Your task to perform on an android device: Open Amazon Image 0: 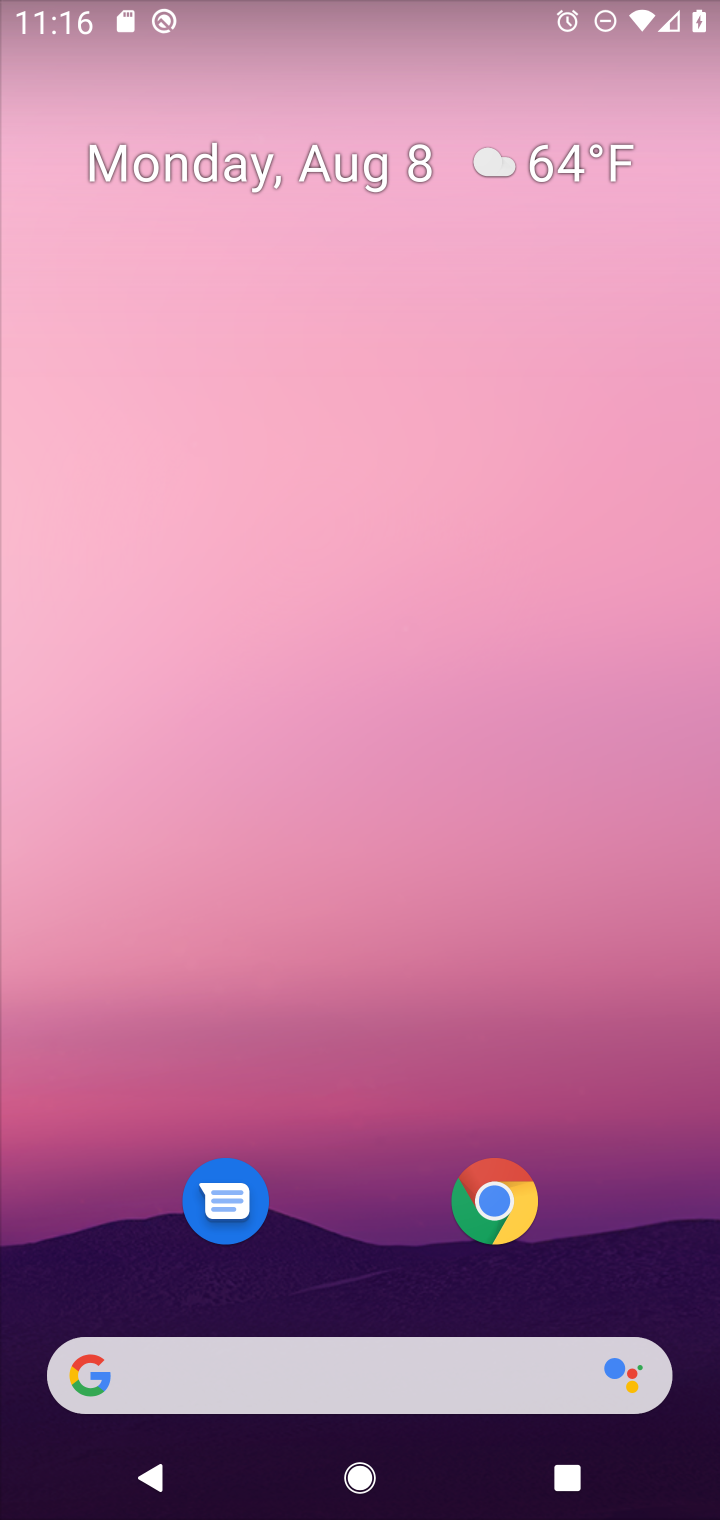
Step 0: press home button
Your task to perform on an android device: Open Amazon Image 1: 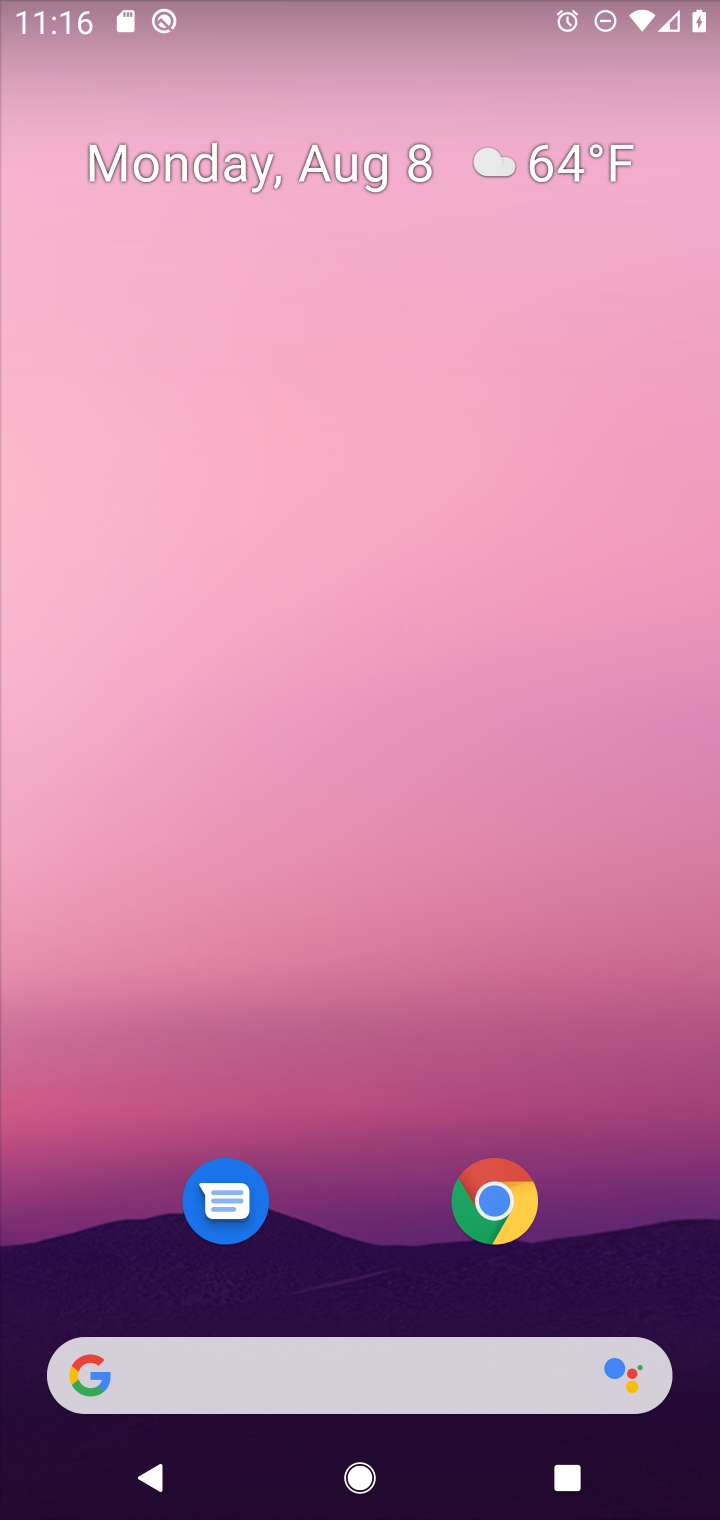
Step 1: drag from (390, 1219) to (462, 267)
Your task to perform on an android device: Open Amazon Image 2: 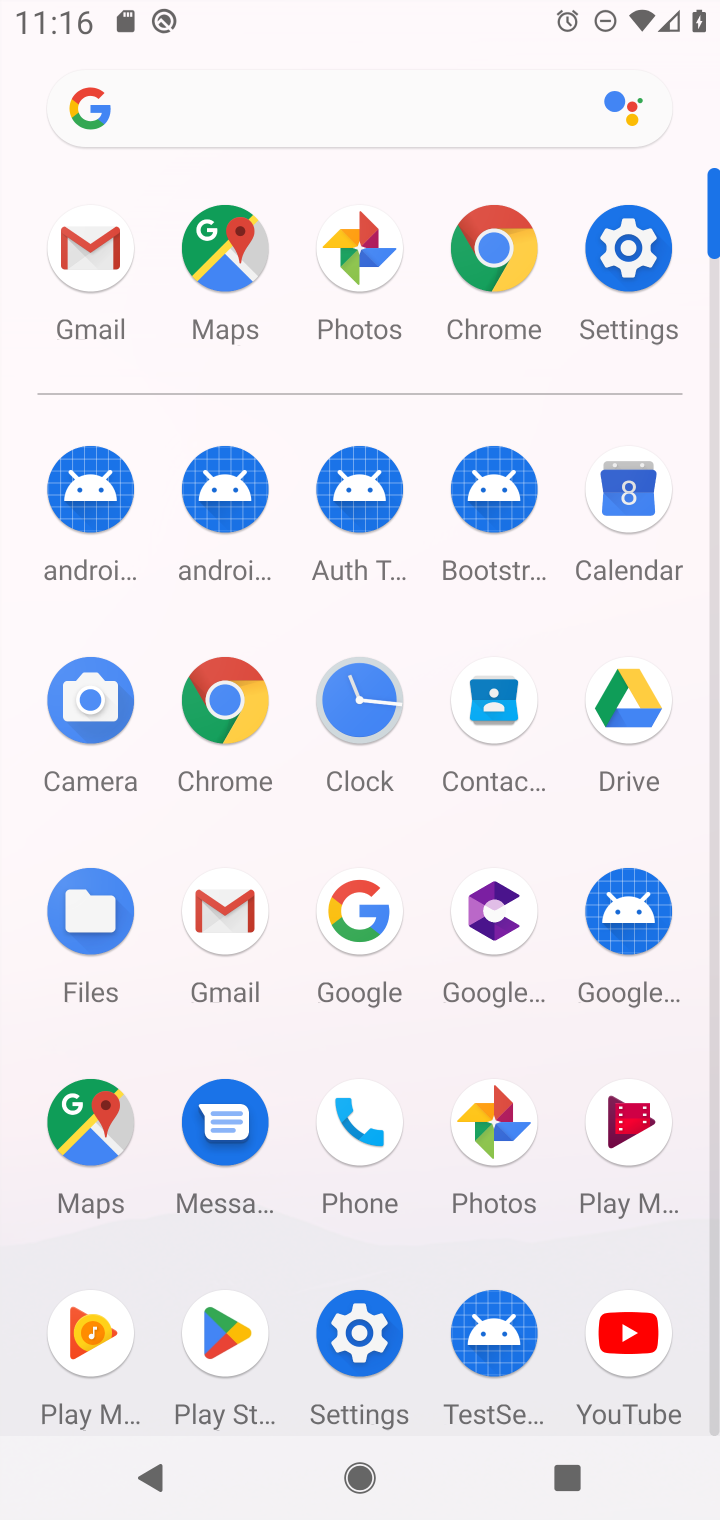
Step 2: click (511, 263)
Your task to perform on an android device: Open Amazon Image 3: 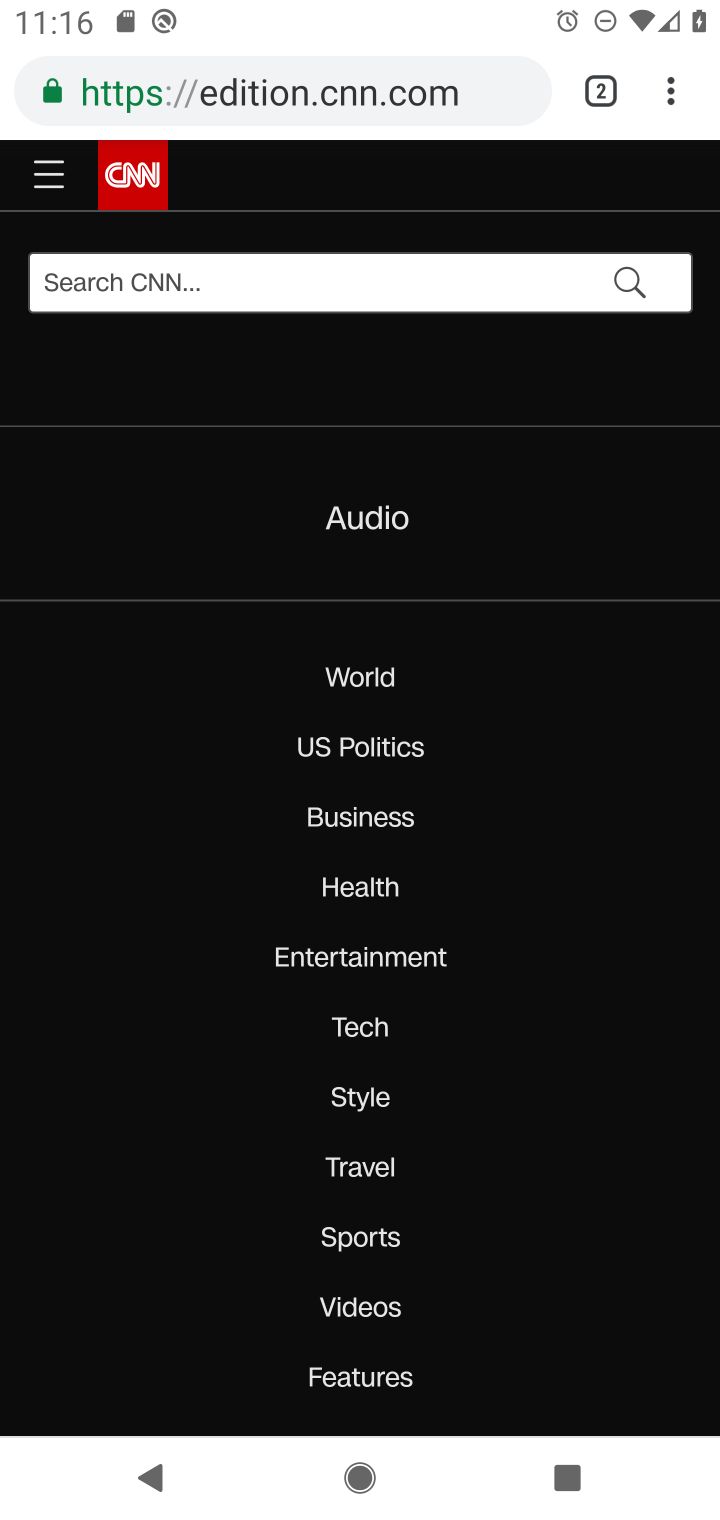
Step 3: click (379, 105)
Your task to perform on an android device: Open Amazon Image 4: 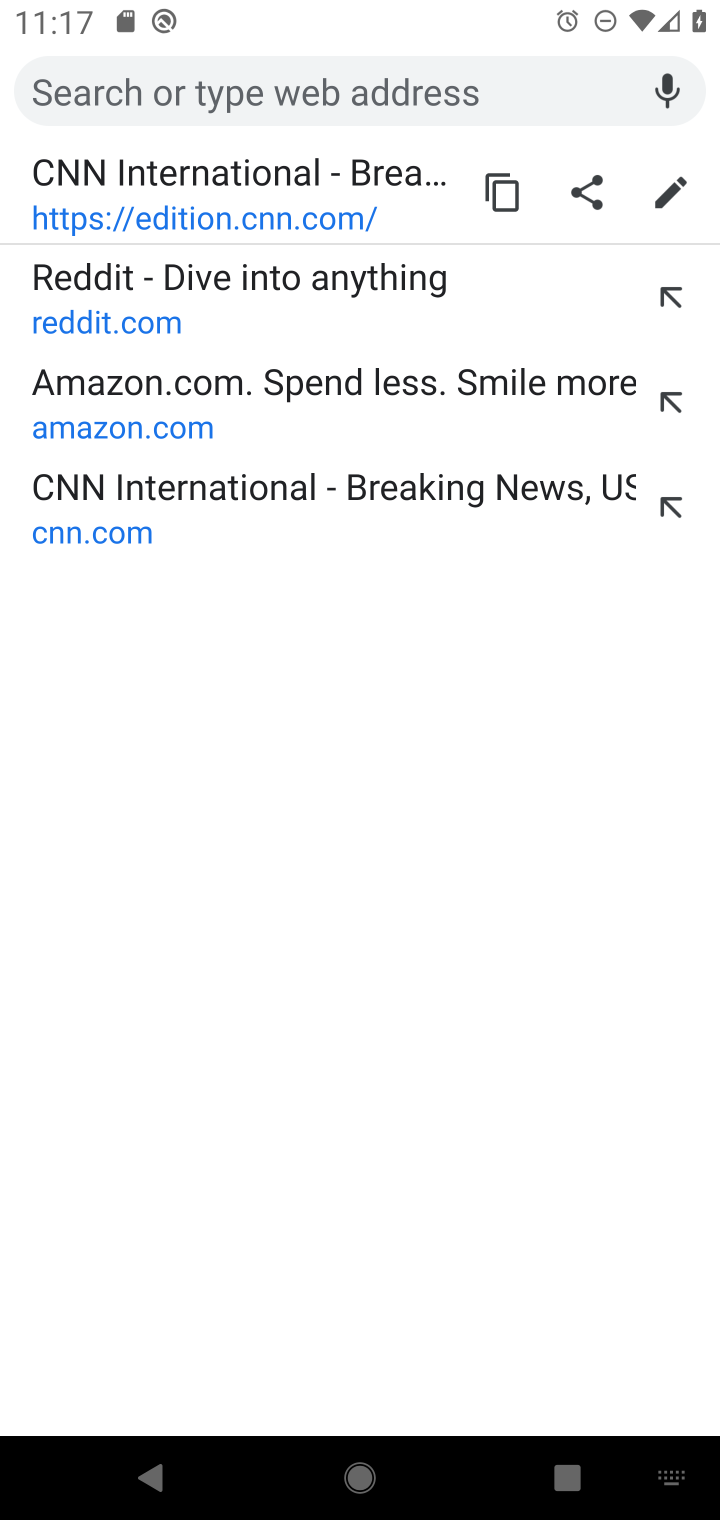
Step 4: type "amazon"
Your task to perform on an android device: Open Amazon Image 5: 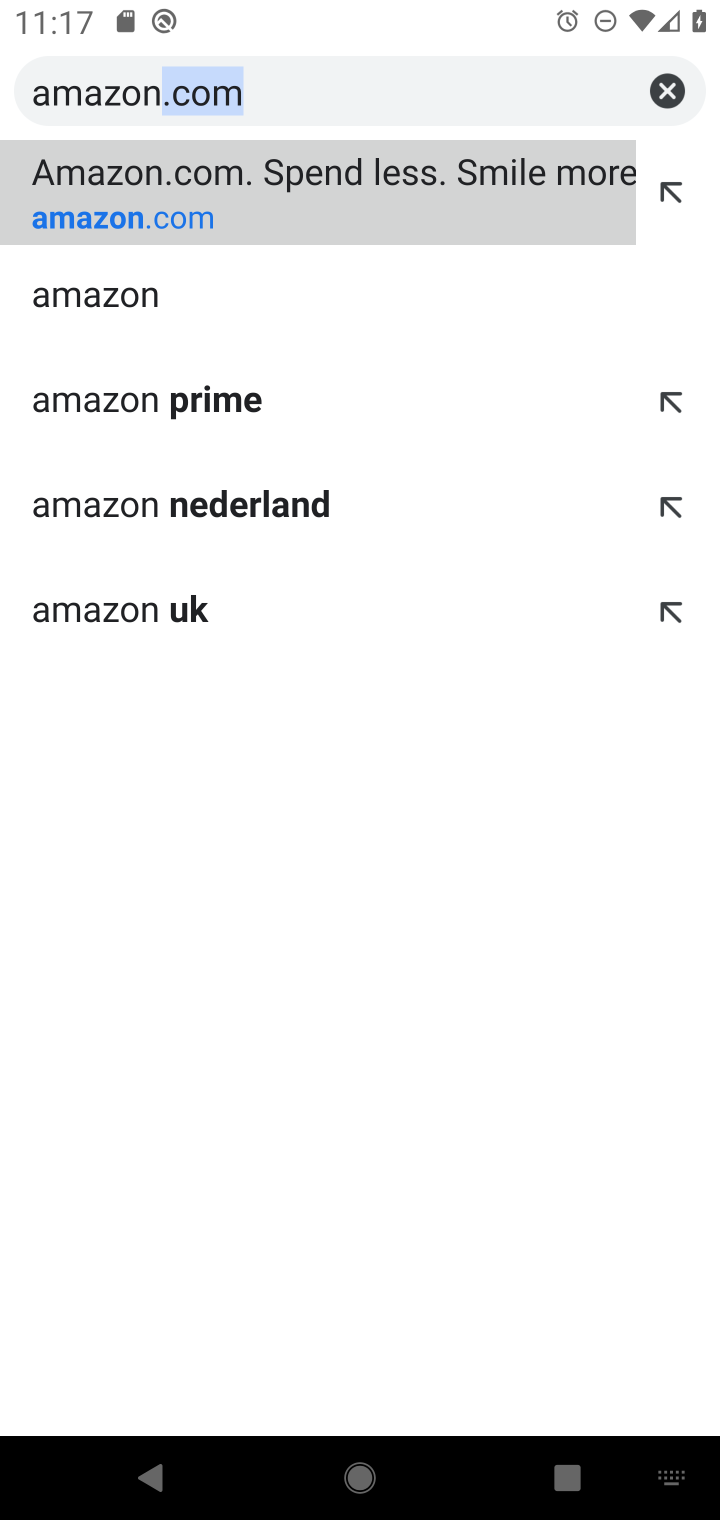
Step 5: click (423, 198)
Your task to perform on an android device: Open Amazon Image 6: 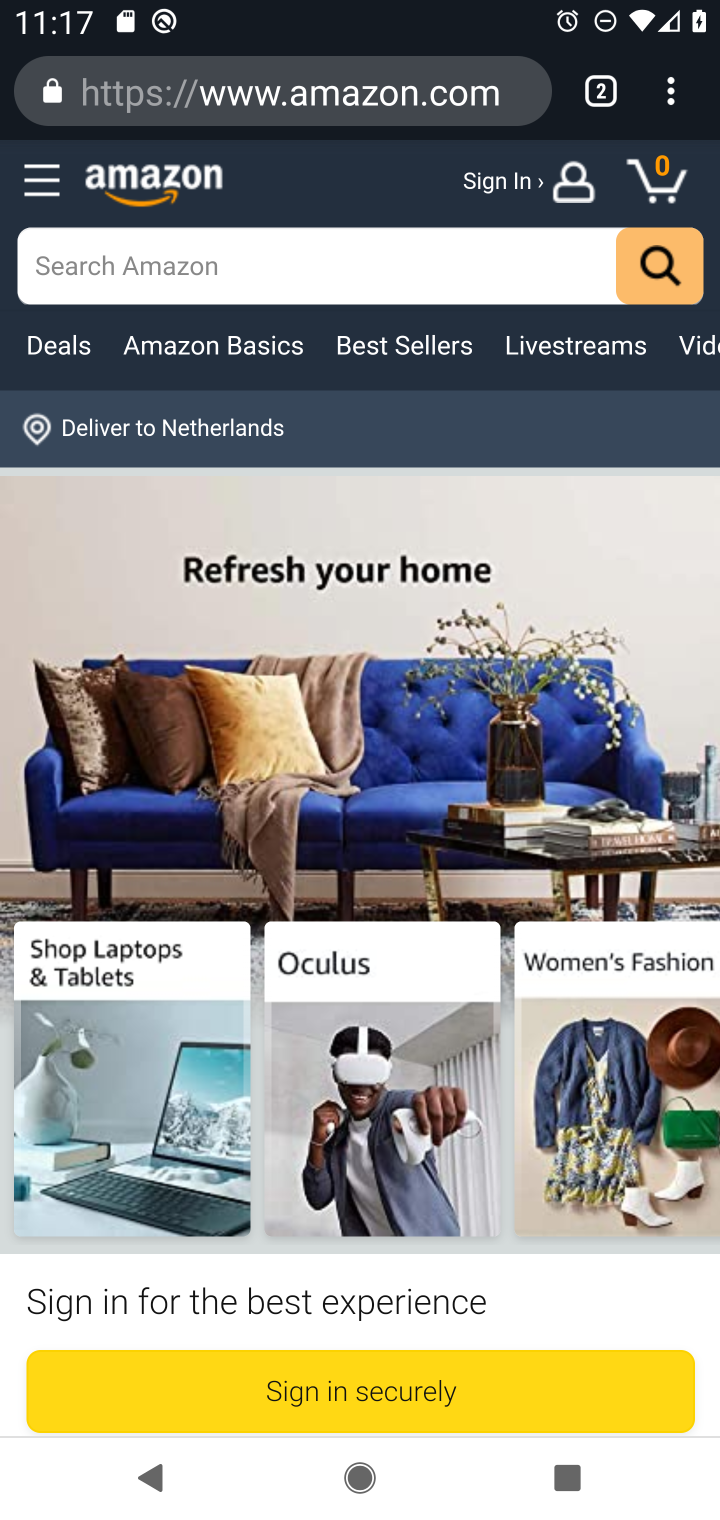
Step 6: task complete